Your task to perform on an android device: Go to network settings Image 0: 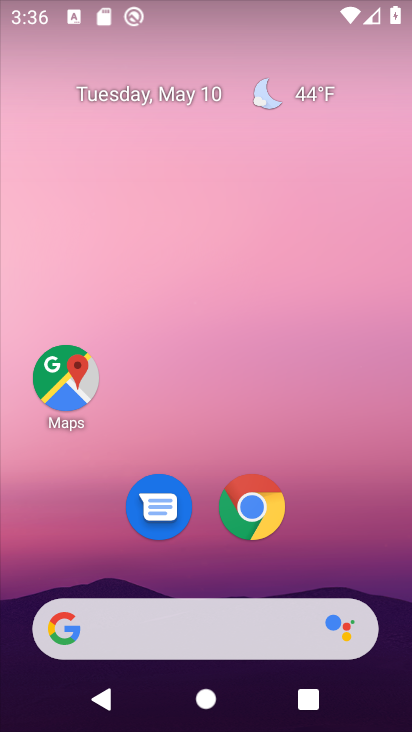
Step 0: drag from (224, 583) to (287, 175)
Your task to perform on an android device: Go to network settings Image 1: 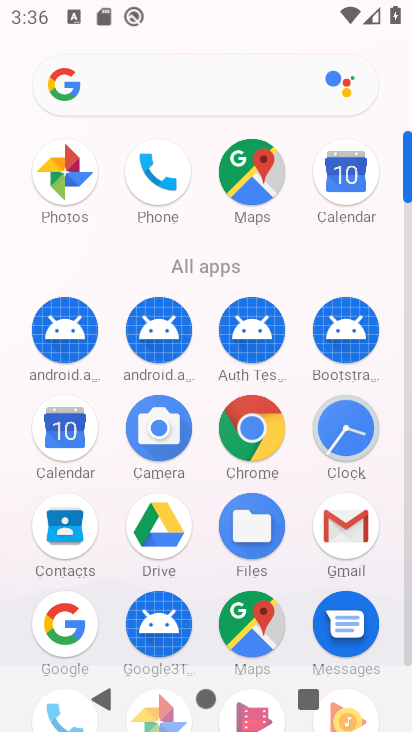
Step 1: drag from (207, 536) to (218, 113)
Your task to perform on an android device: Go to network settings Image 2: 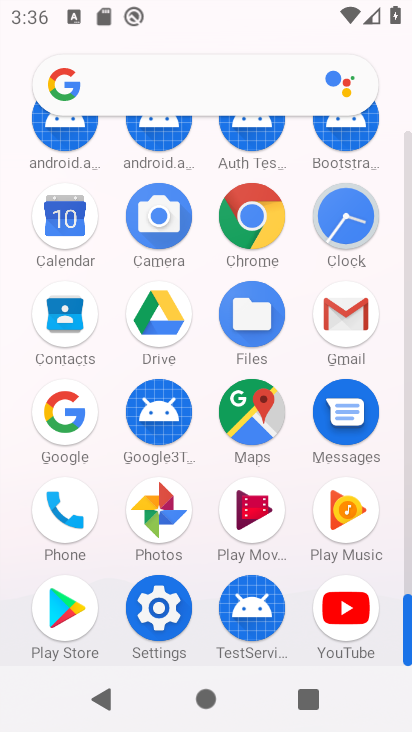
Step 2: click (153, 605)
Your task to perform on an android device: Go to network settings Image 3: 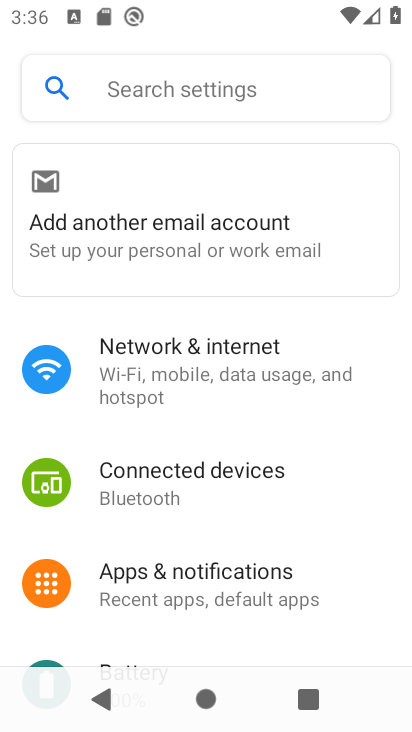
Step 3: click (270, 361)
Your task to perform on an android device: Go to network settings Image 4: 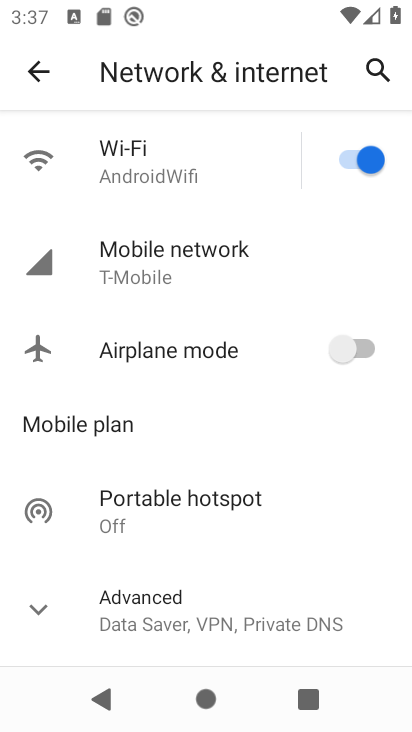
Step 4: click (194, 262)
Your task to perform on an android device: Go to network settings Image 5: 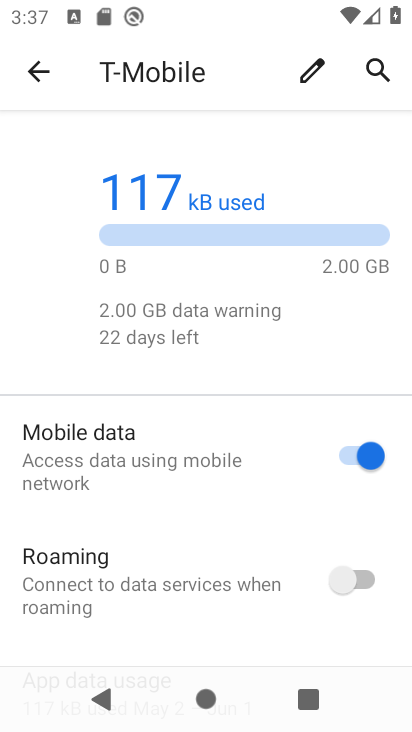
Step 5: task complete